Your task to perform on an android device: toggle wifi Image 0: 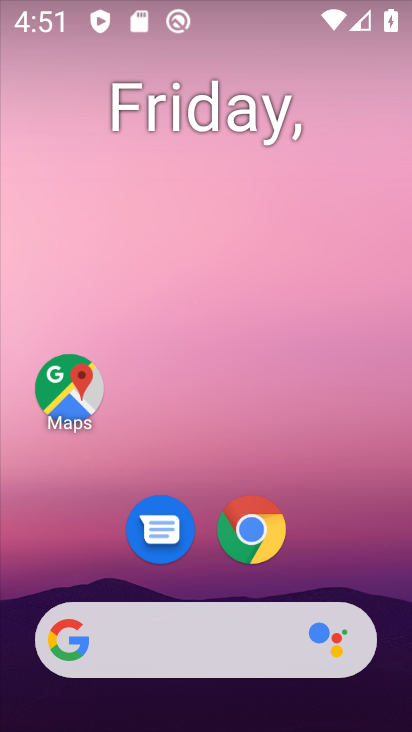
Step 0: drag from (323, 548) to (255, 32)
Your task to perform on an android device: toggle wifi Image 1: 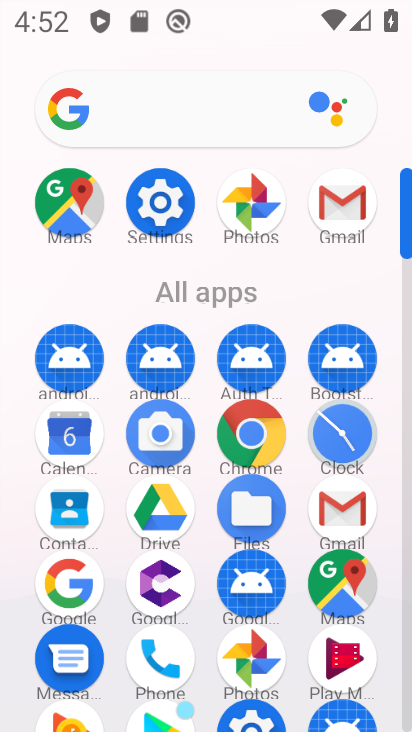
Step 1: click (180, 207)
Your task to perform on an android device: toggle wifi Image 2: 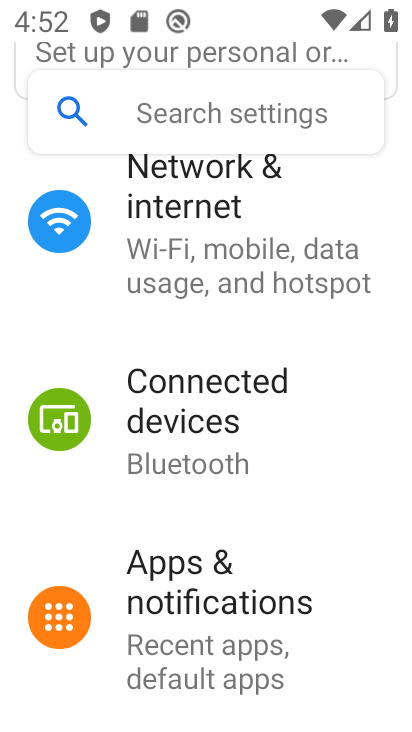
Step 2: click (225, 272)
Your task to perform on an android device: toggle wifi Image 3: 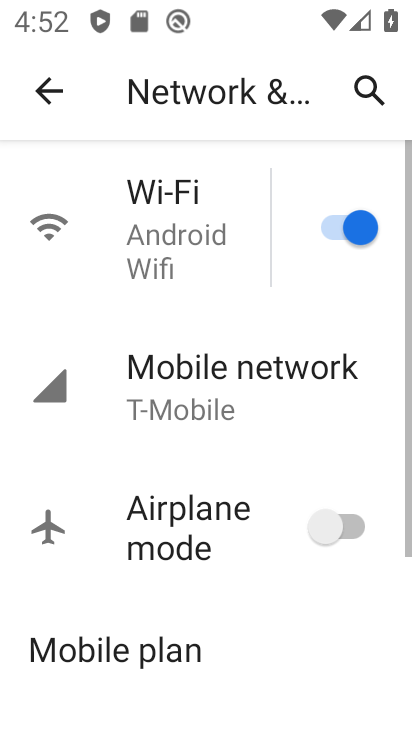
Step 3: click (341, 230)
Your task to perform on an android device: toggle wifi Image 4: 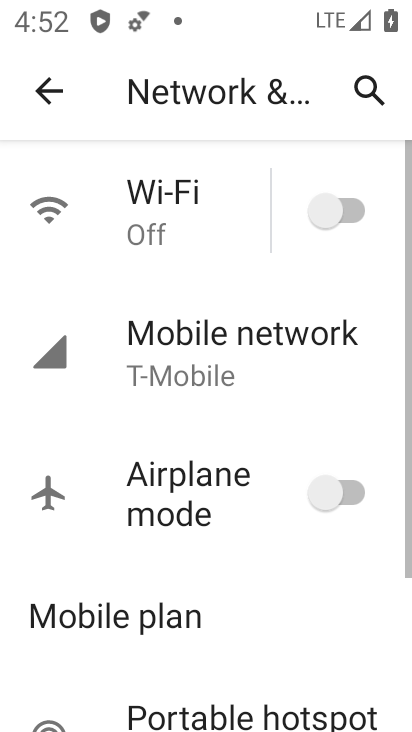
Step 4: task complete